Your task to perform on an android device: install app "Truecaller" Image 0: 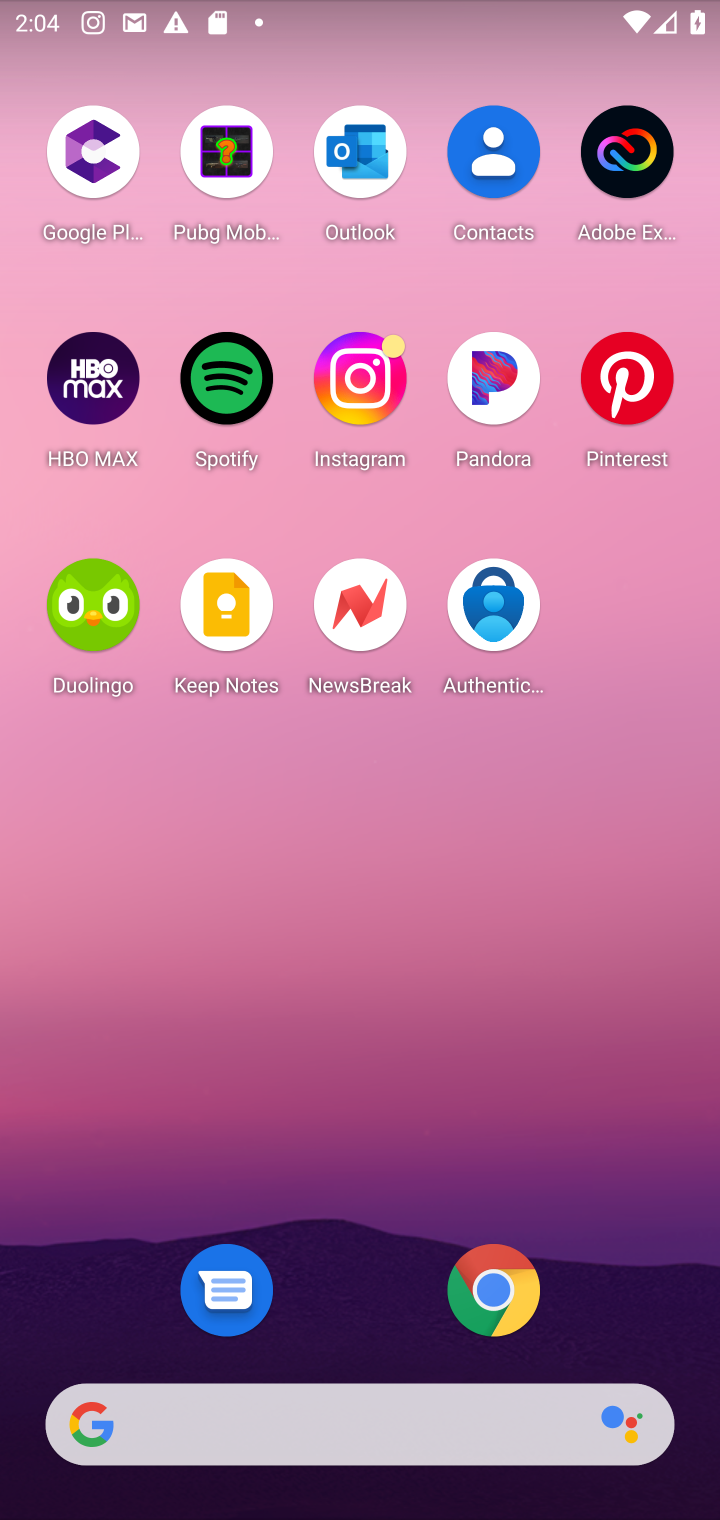
Step 0: press home button
Your task to perform on an android device: install app "Truecaller" Image 1: 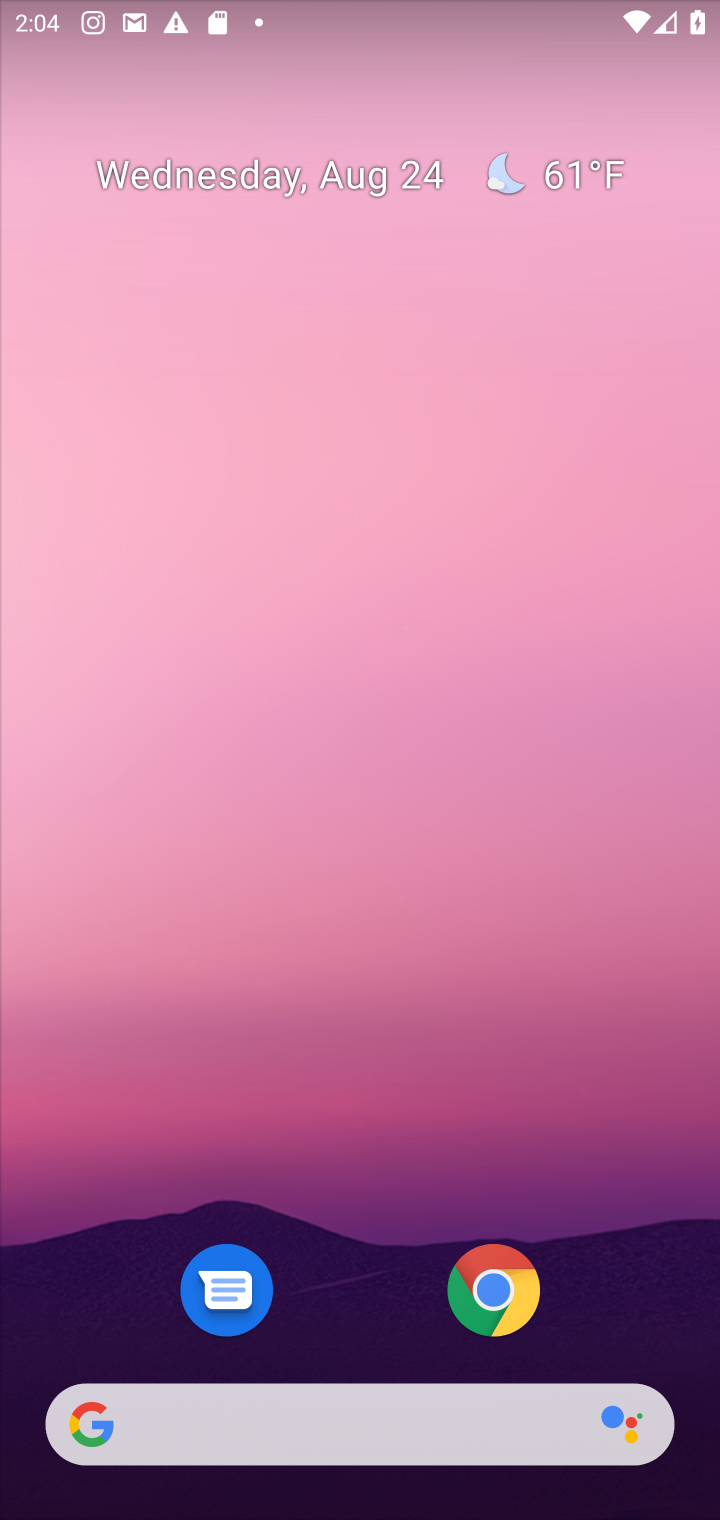
Step 1: drag from (344, 1301) to (464, 500)
Your task to perform on an android device: install app "Truecaller" Image 2: 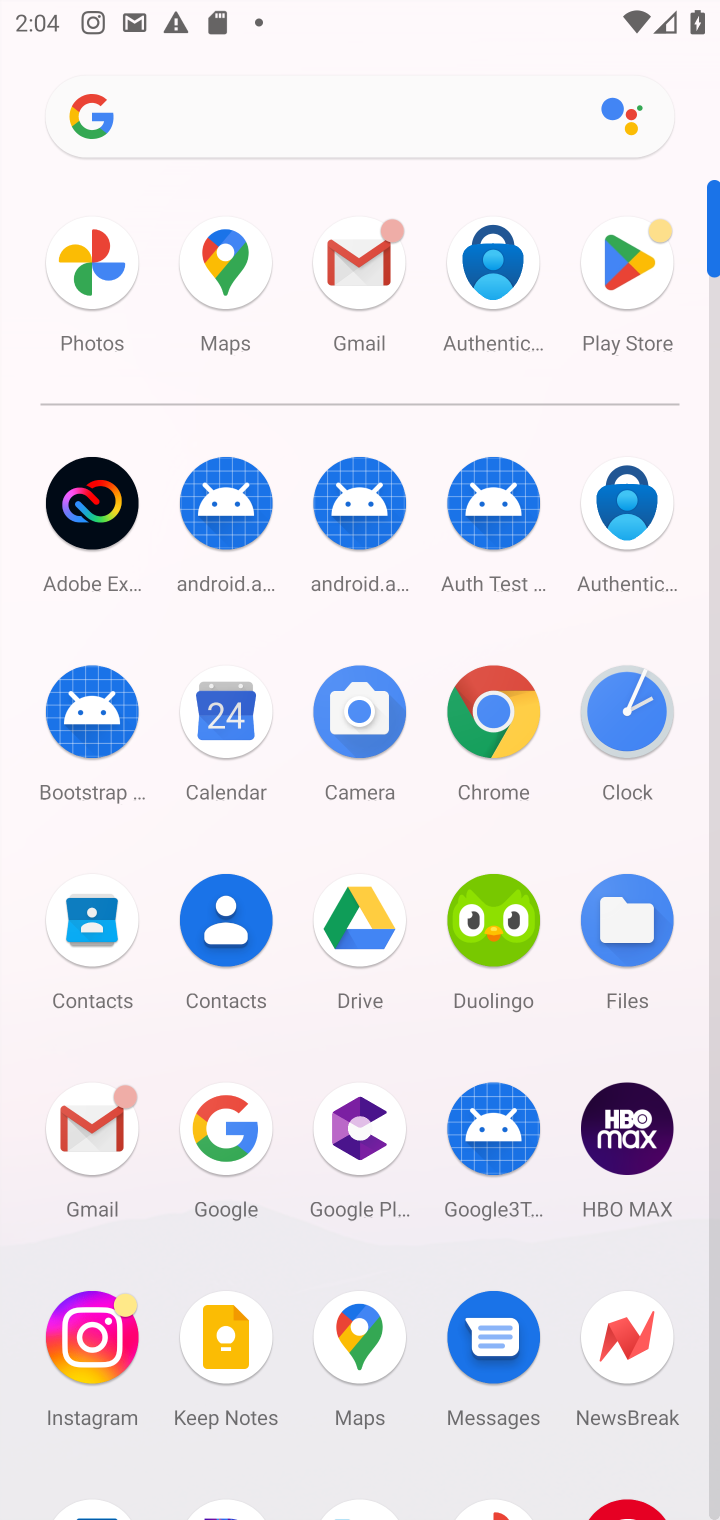
Step 2: click (615, 261)
Your task to perform on an android device: install app "Truecaller" Image 3: 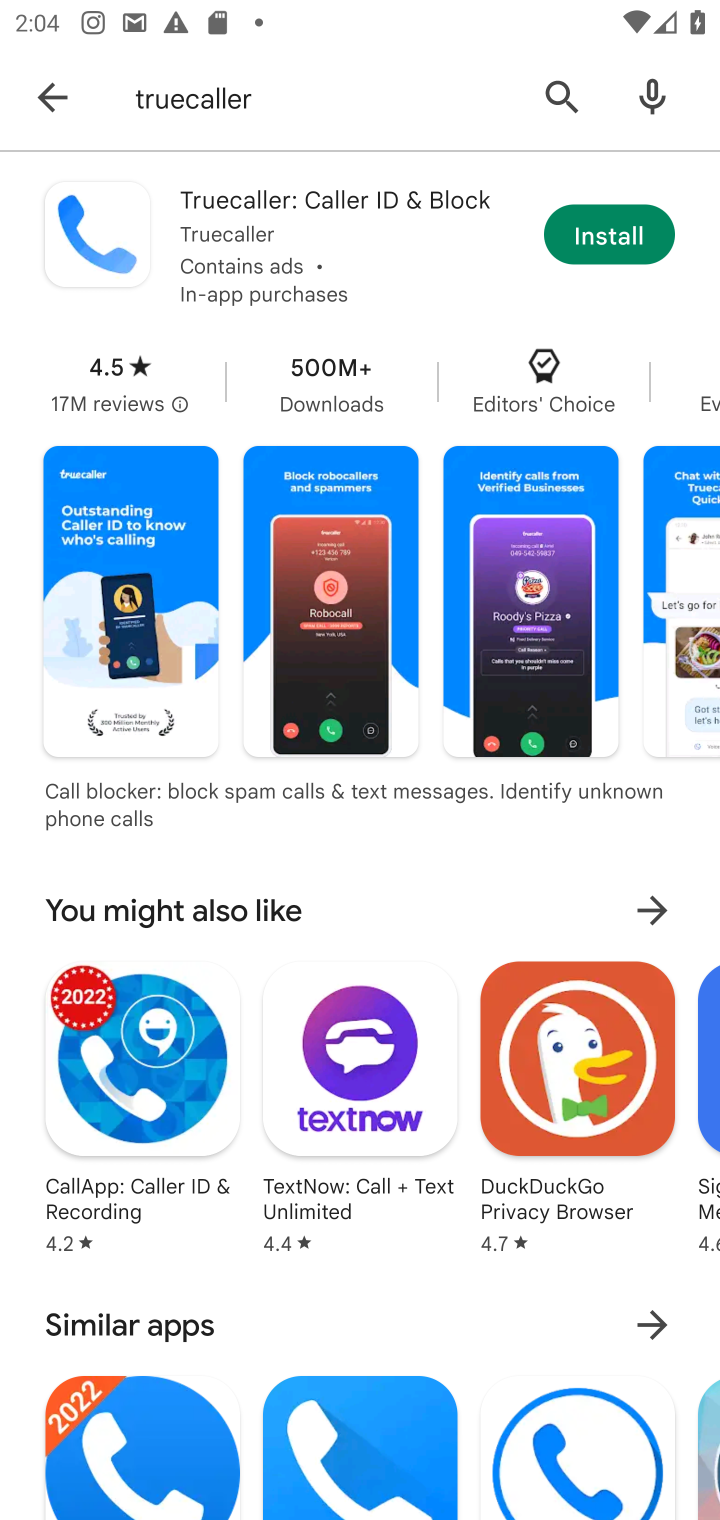
Step 3: click (53, 85)
Your task to perform on an android device: install app "Truecaller" Image 4: 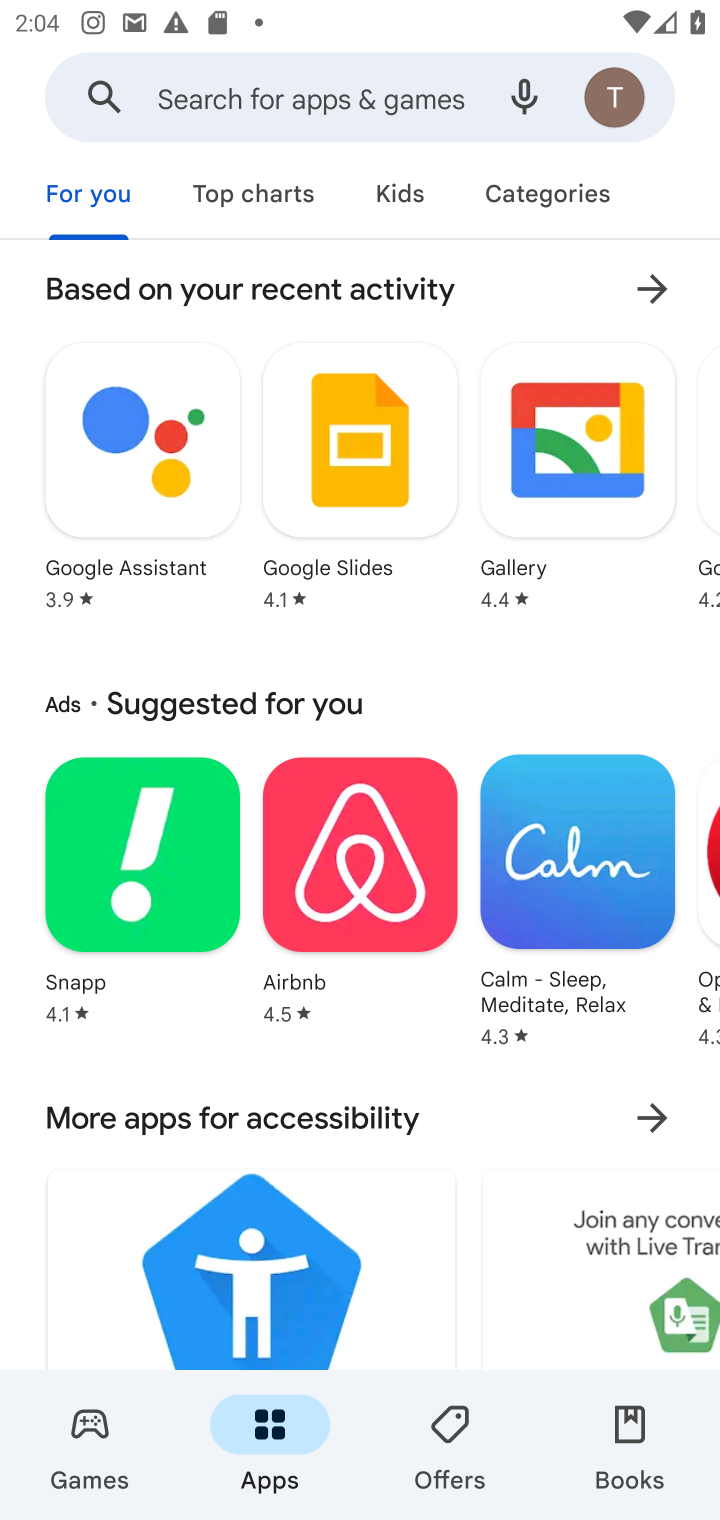
Step 4: click (318, 85)
Your task to perform on an android device: install app "Truecaller" Image 5: 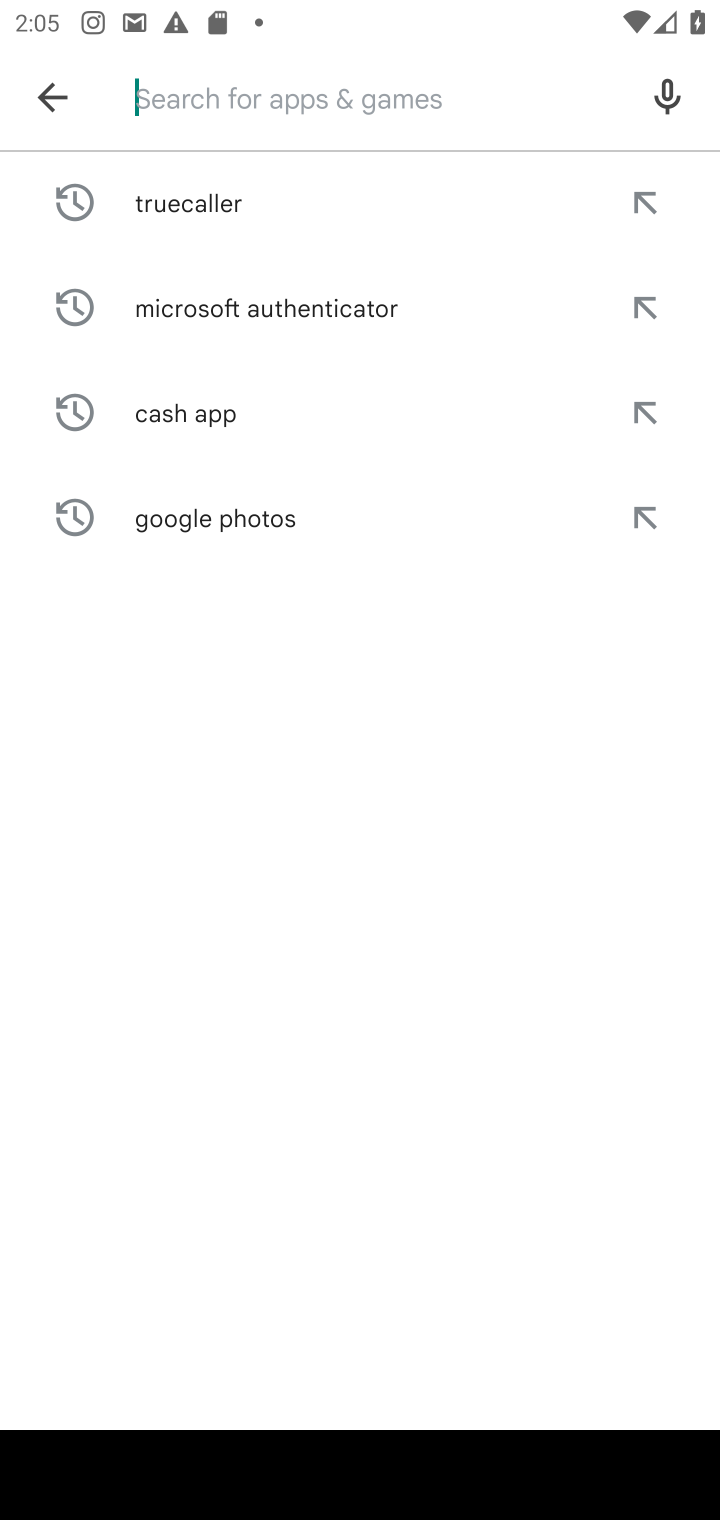
Step 5: type "Truecaller"
Your task to perform on an android device: install app "Truecaller" Image 6: 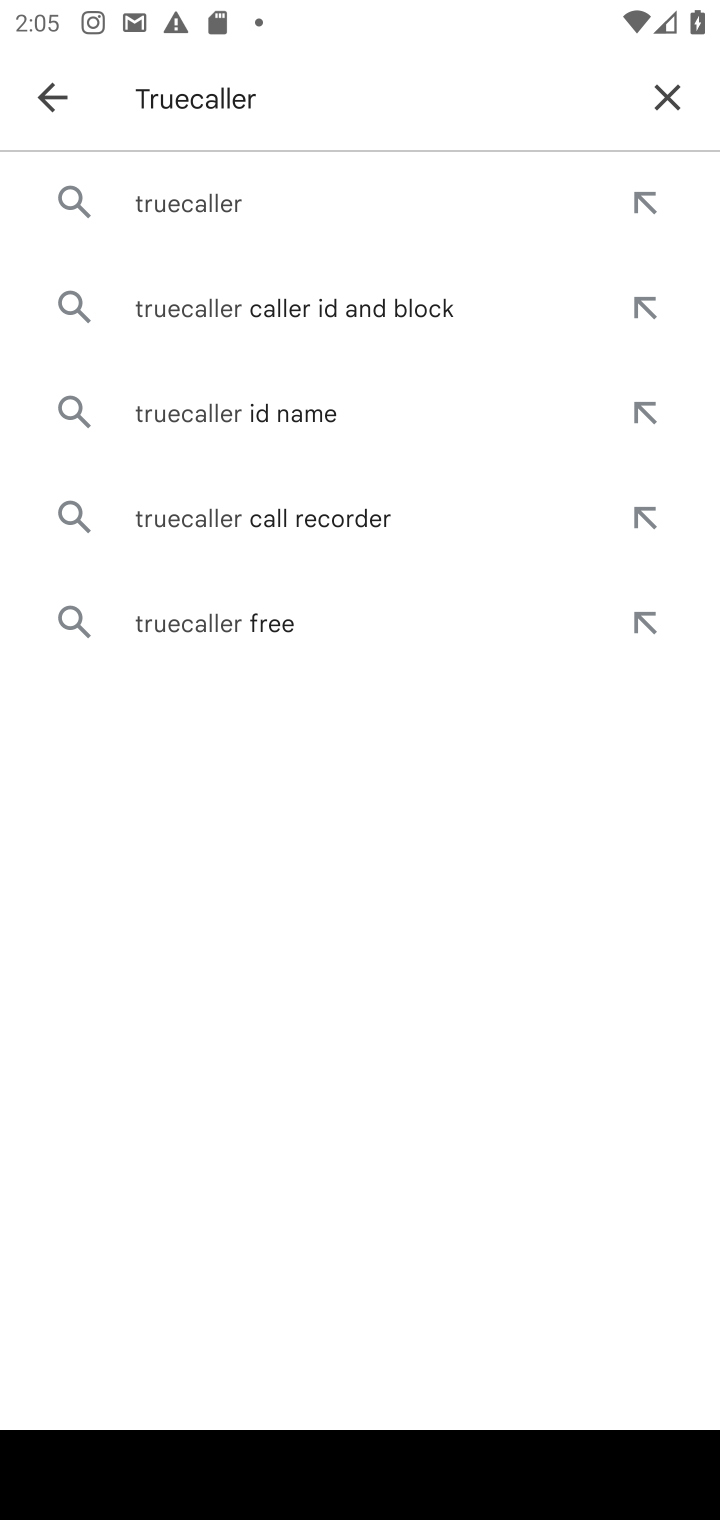
Step 6: click (163, 201)
Your task to perform on an android device: install app "Truecaller" Image 7: 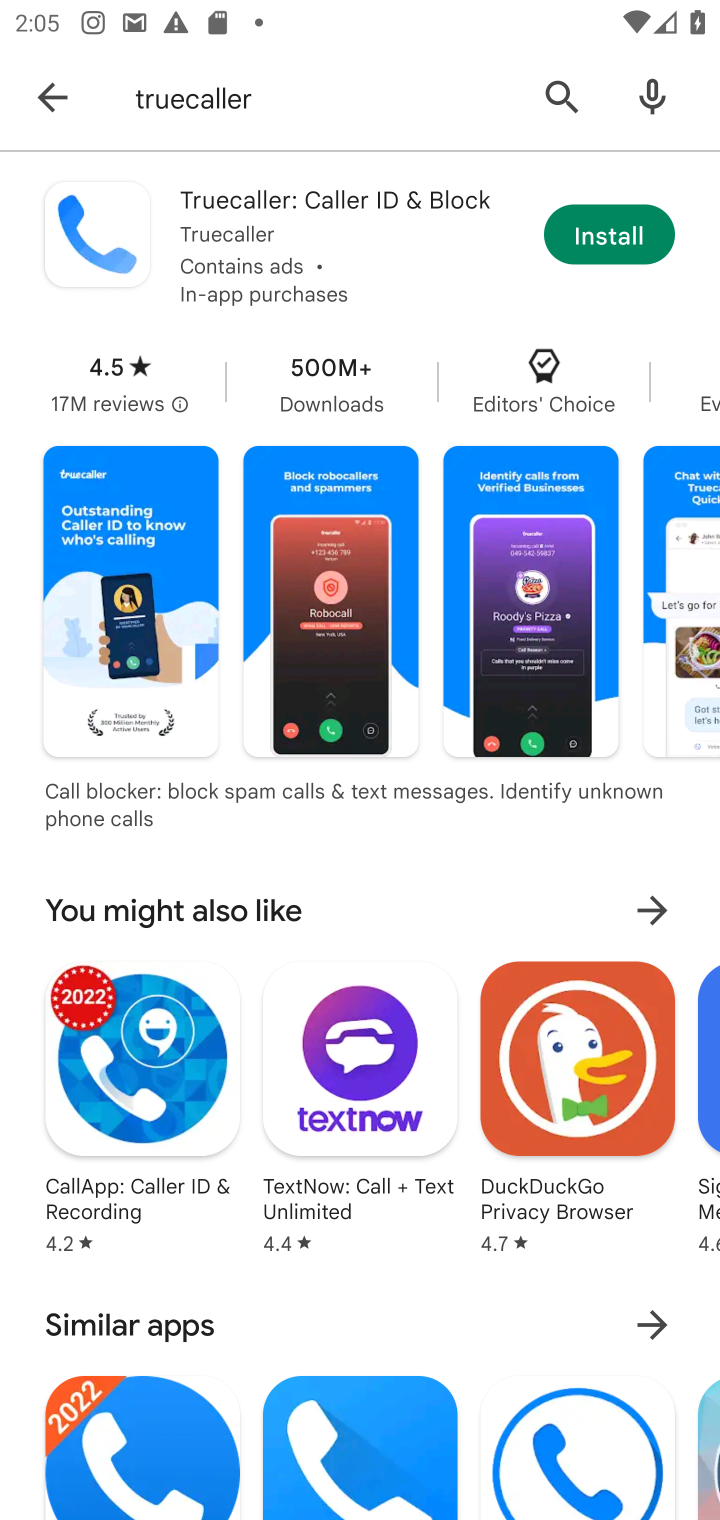
Step 7: click (631, 240)
Your task to perform on an android device: install app "Truecaller" Image 8: 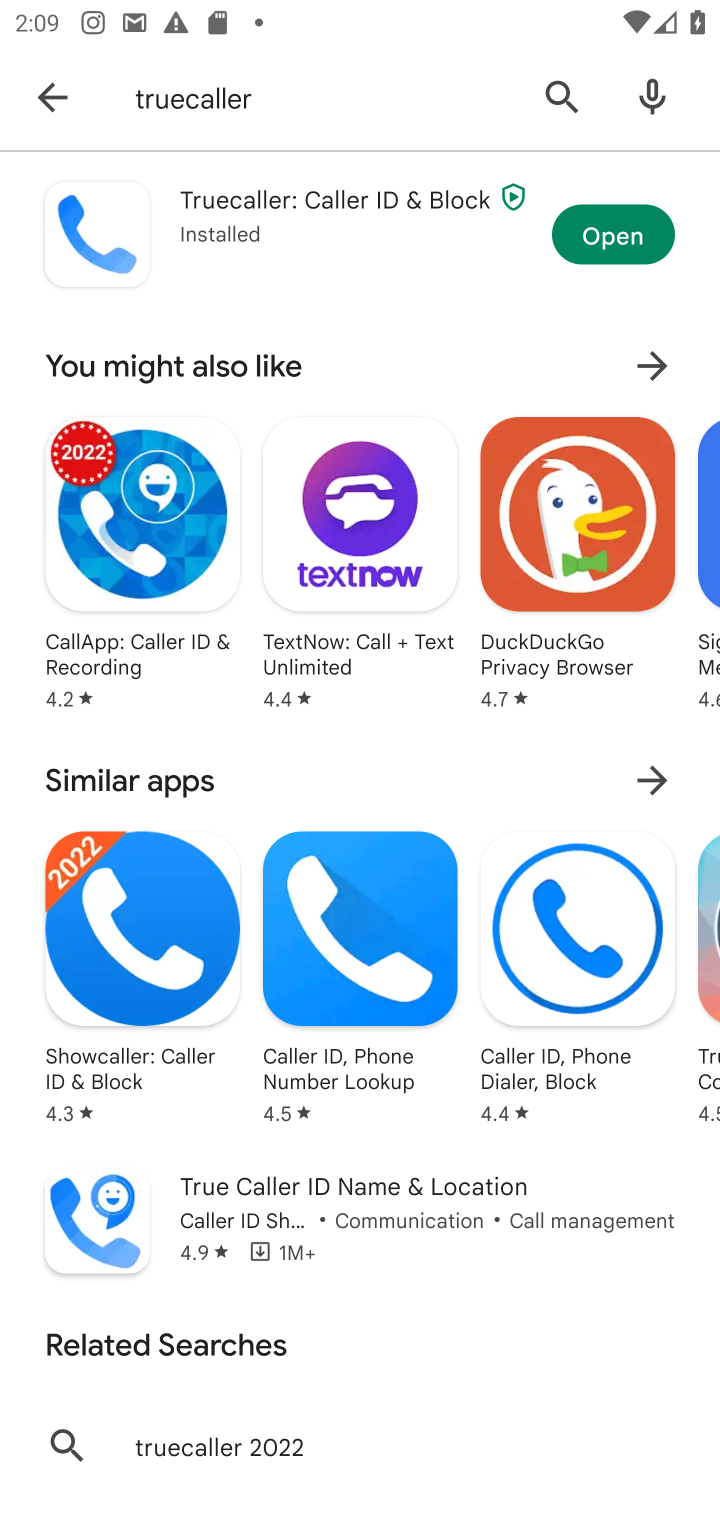
Step 8: click (603, 229)
Your task to perform on an android device: install app "Truecaller" Image 9: 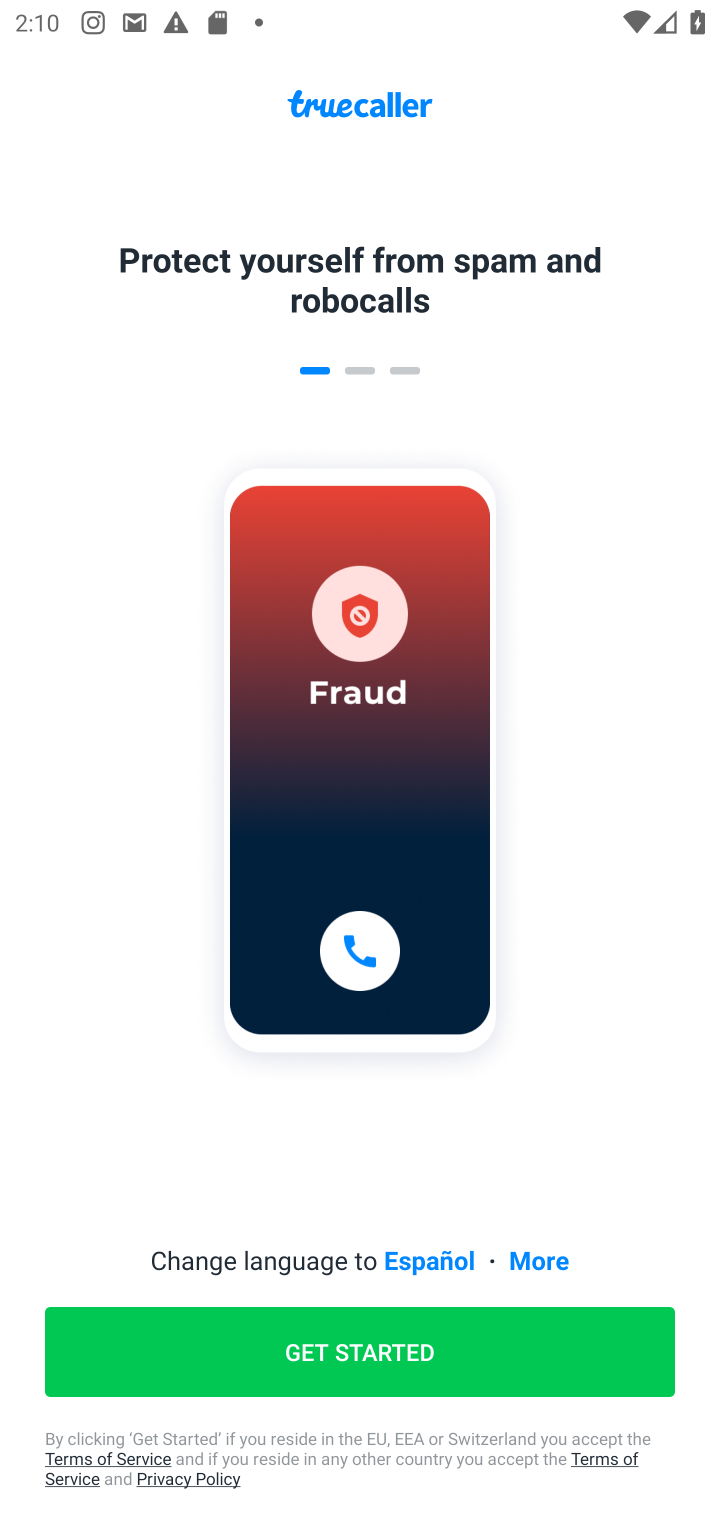
Step 9: task complete